Your task to perform on an android device: open app "Pandora - Music & Podcasts" (install if not already installed) Image 0: 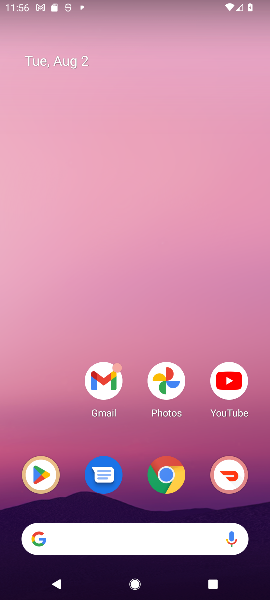
Step 0: click (44, 473)
Your task to perform on an android device: open app "Pandora - Music & Podcasts" (install if not already installed) Image 1: 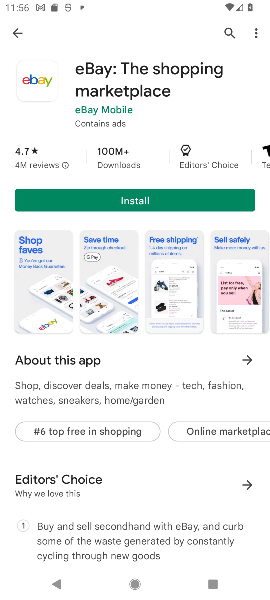
Step 1: click (229, 28)
Your task to perform on an android device: open app "Pandora - Music & Podcasts" (install if not already installed) Image 2: 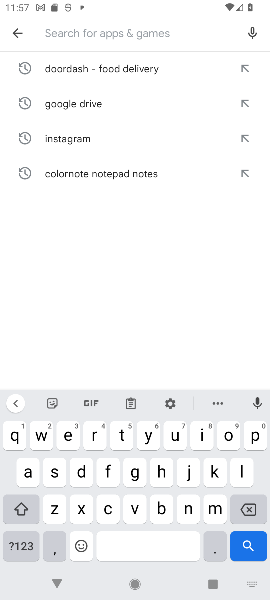
Step 2: type "Pandora - Music & Podcasts"
Your task to perform on an android device: open app "Pandora - Music & Podcasts" (install if not already installed) Image 3: 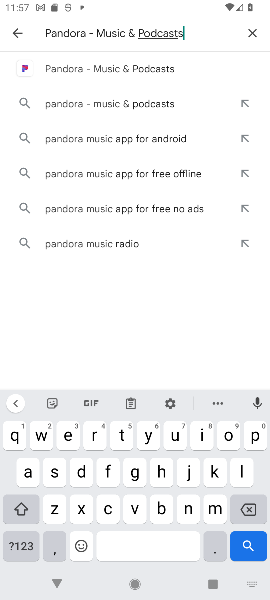
Step 3: type ""
Your task to perform on an android device: open app "Pandora - Music & Podcasts" (install if not already installed) Image 4: 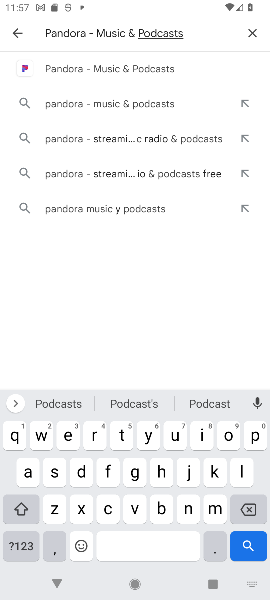
Step 4: click (146, 68)
Your task to perform on an android device: open app "Pandora - Music & Podcasts" (install if not already installed) Image 5: 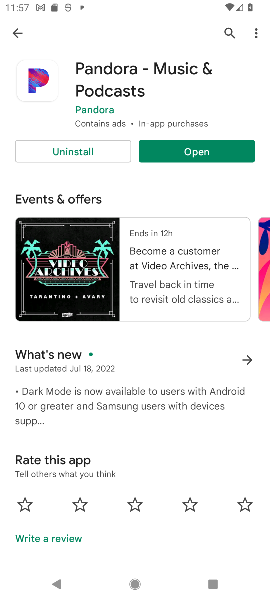
Step 5: click (174, 149)
Your task to perform on an android device: open app "Pandora - Music & Podcasts" (install if not already installed) Image 6: 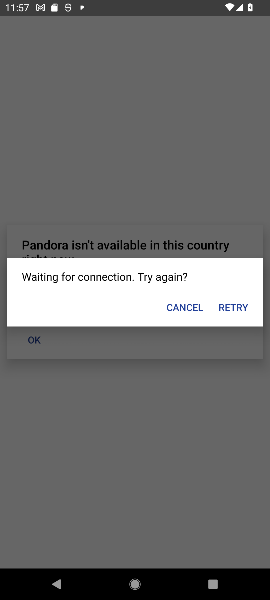
Step 6: click (237, 306)
Your task to perform on an android device: open app "Pandora - Music & Podcasts" (install if not already installed) Image 7: 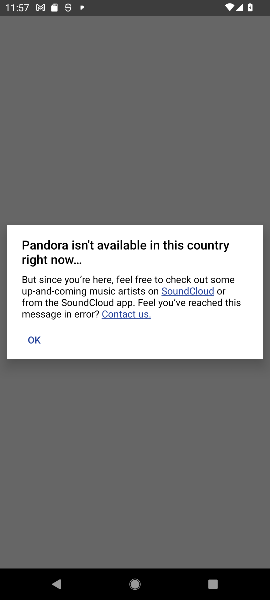
Step 7: click (34, 339)
Your task to perform on an android device: open app "Pandora - Music & Podcasts" (install if not already installed) Image 8: 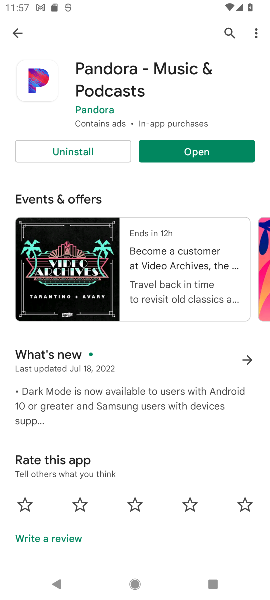
Step 8: task complete